Your task to perform on an android device: Open CNN.com Image 0: 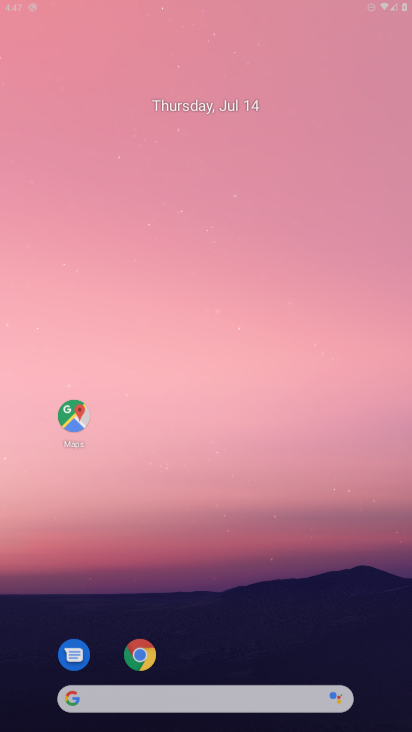
Step 0: press home button
Your task to perform on an android device: Open CNN.com Image 1: 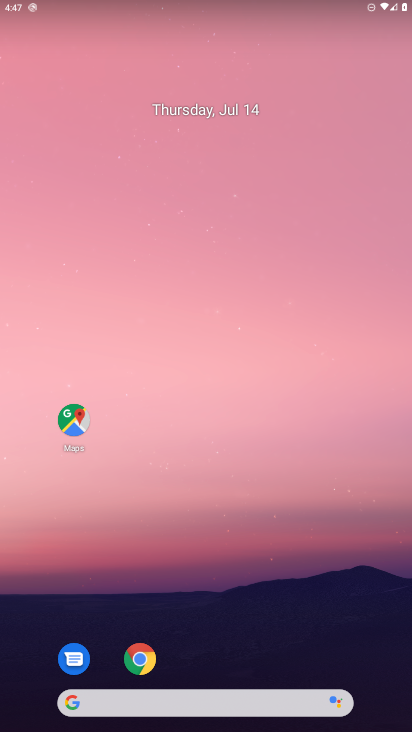
Step 1: click (138, 653)
Your task to perform on an android device: Open CNN.com Image 2: 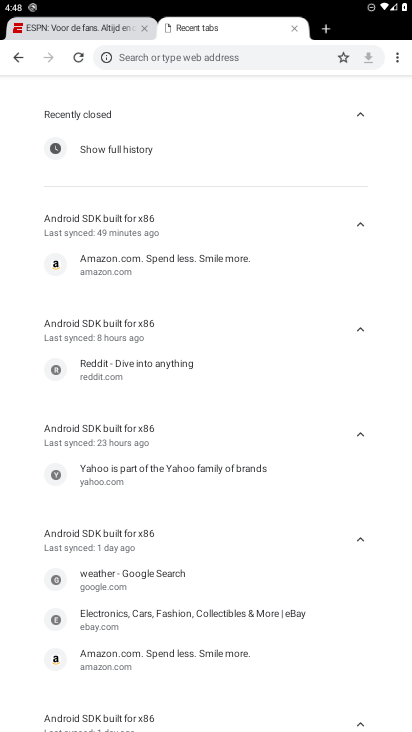
Step 2: click (323, 28)
Your task to perform on an android device: Open CNN.com Image 3: 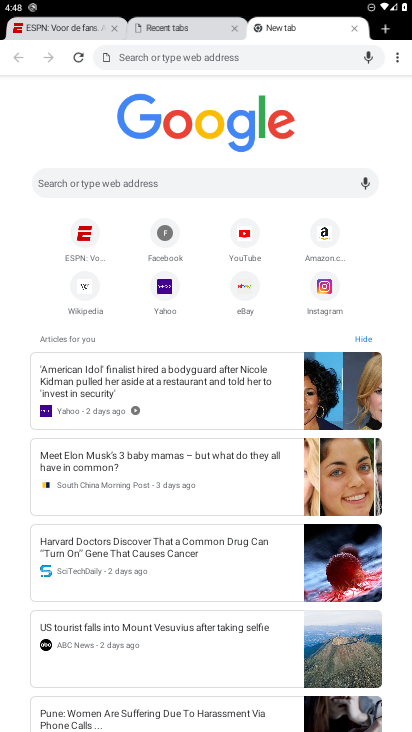
Step 3: click (109, 177)
Your task to perform on an android device: Open CNN.com Image 4: 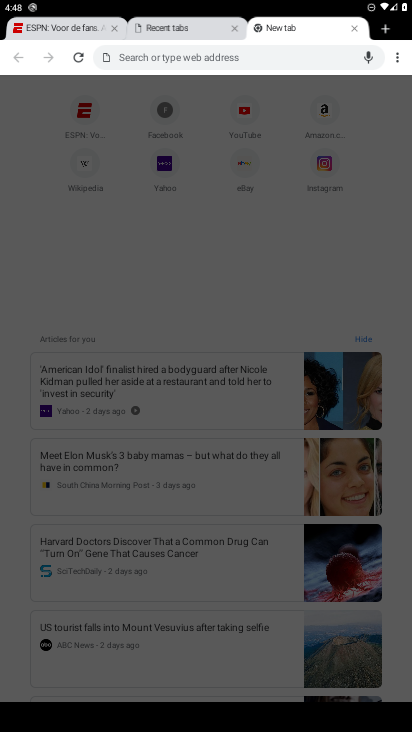
Step 4: type "cnn.com"
Your task to perform on an android device: Open CNN.com Image 5: 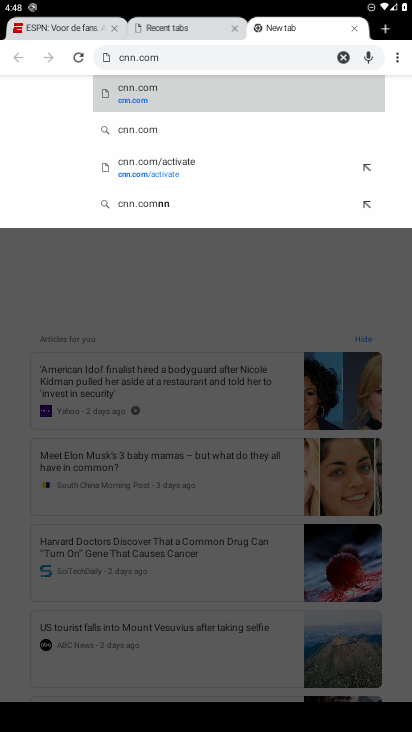
Step 5: click (139, 98)
Your task to perform on an android device: Open CNN.com Image 6: 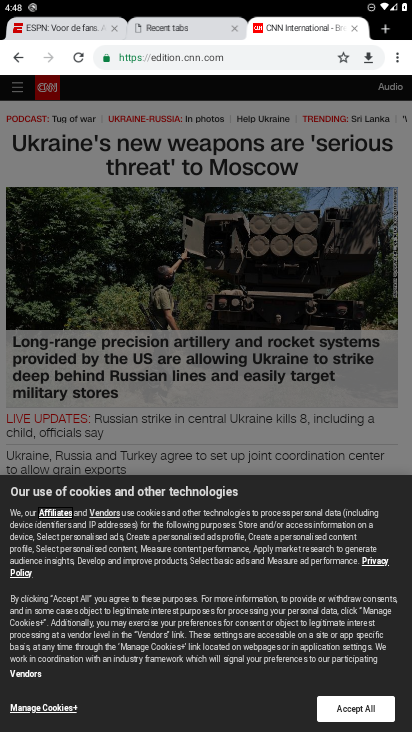
Step 6: click (354, 710)
Your task to perform on an android device: Open CNN.com Image 7: 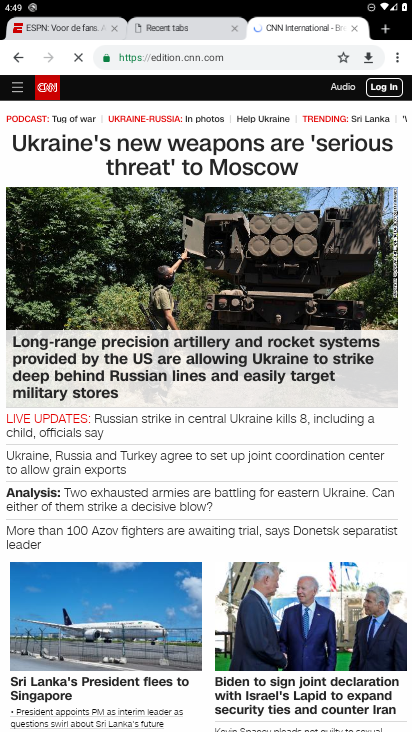
Step 7: task complete